Your task to perform on an android device: Check the news Image 0: 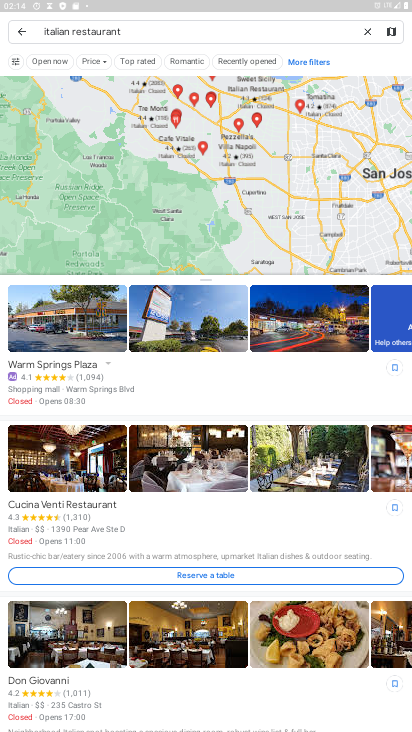
Step 0: press home button
Your task to perform on an android device: Check the news Image 1: 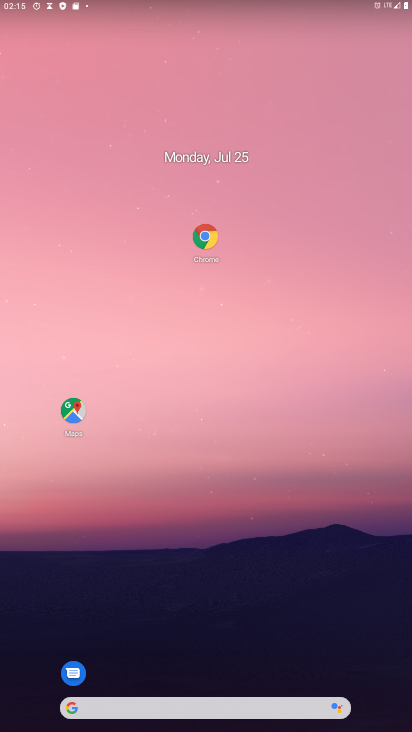
Step 1: drag from (243, 606) to (303, 23)
Your task to perform on an android device: Check the news Image 2: 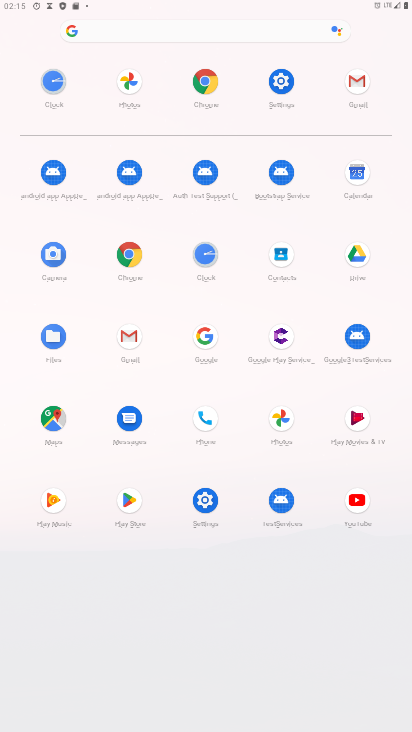
Step 2: click (122, 257)
Your task to perform on an android device: Check the news Image 3: 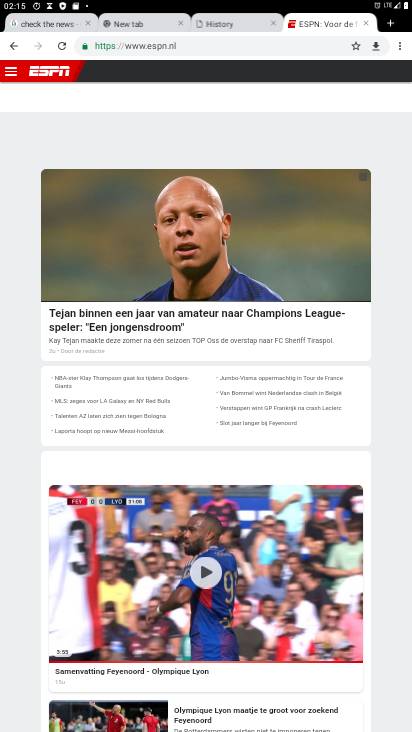
Step 3: click (219, 46)
Your task to perform on an android device: Check the news Image 4: 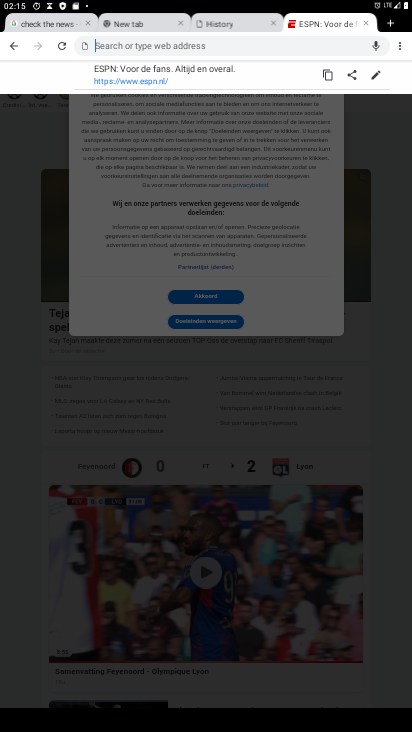
Step 4: type "check the news"
Your task to perform on an android device: Check the news Image 5: 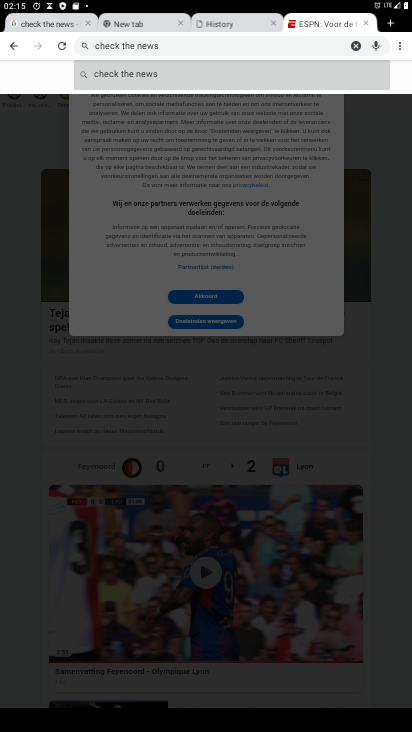
Step 5: click (198, 91)
Your task to perform on an android device: Check the news Image 6: 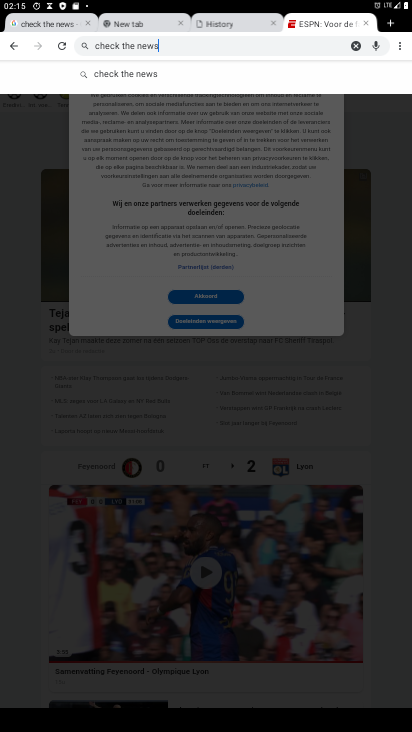
Step 6: click (200, 74)
Your task to perform on an android device: Check the news Image 7: 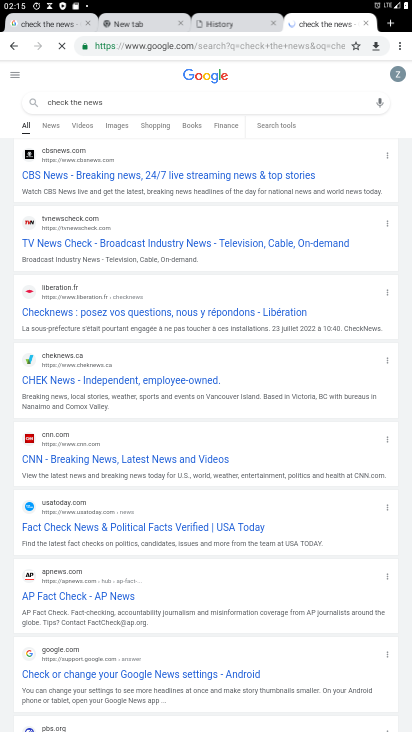
Step 7: task complete